Your task to perform on an android device: Open display settings Image 0: 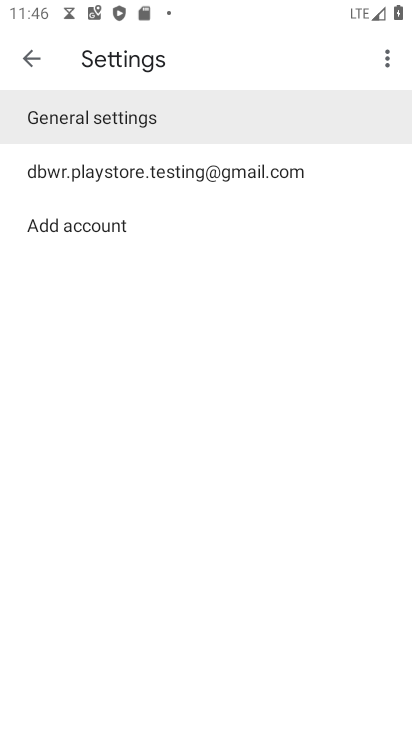
Step 0: press home button
Your task to perform on an android device: Open display settings Image 1: 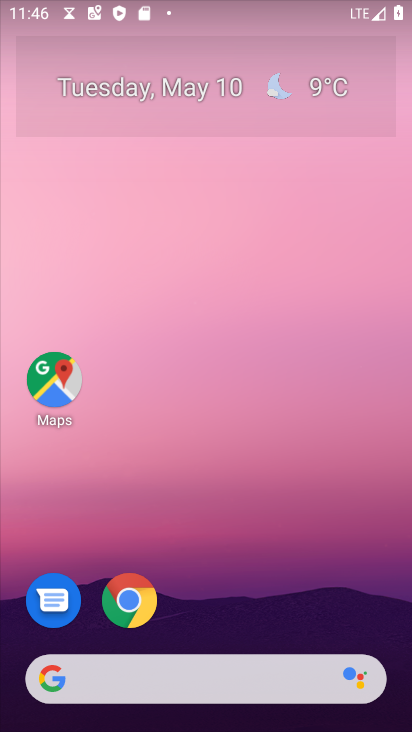
Step 1: drag from (261, 562) to (192, 38)
Your task to perform on an android device: Open display settings Image 2: 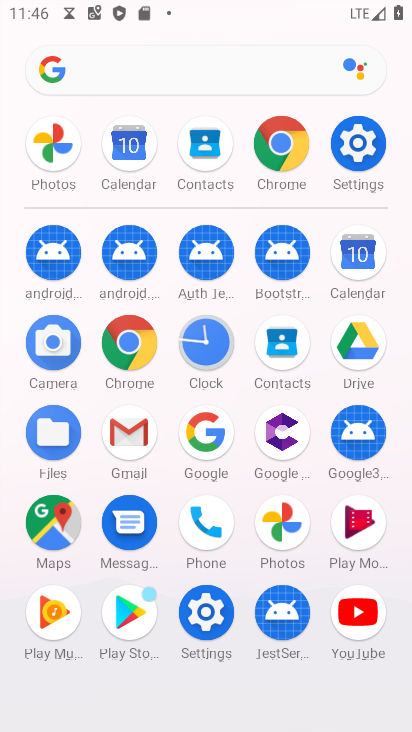
Step 2: click (341, 145)
Your task to perform on an android device: Open display settings Image 3: 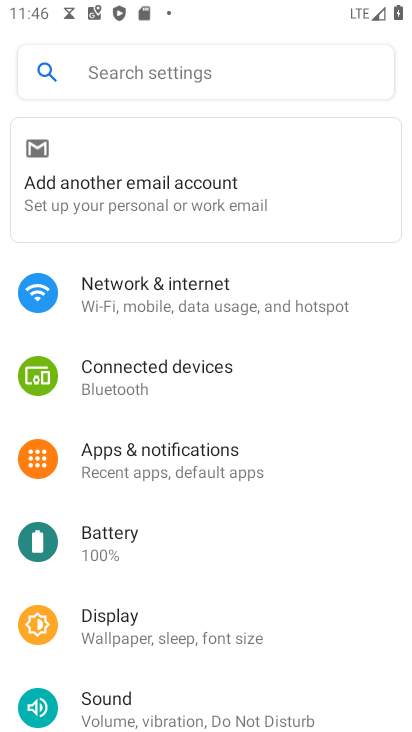
Step 3: click (191, 629)
Your task to perform on an android device: Open display settings Image 4: 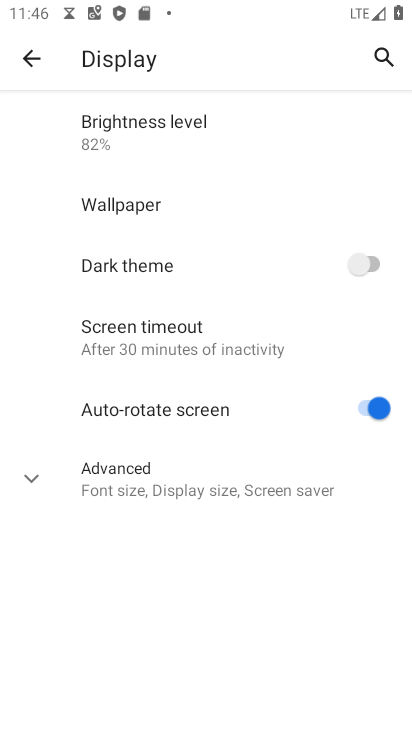
Step 4: task complete